Your task to perform on an android device: add a label to a message in the gmail app Image 0: 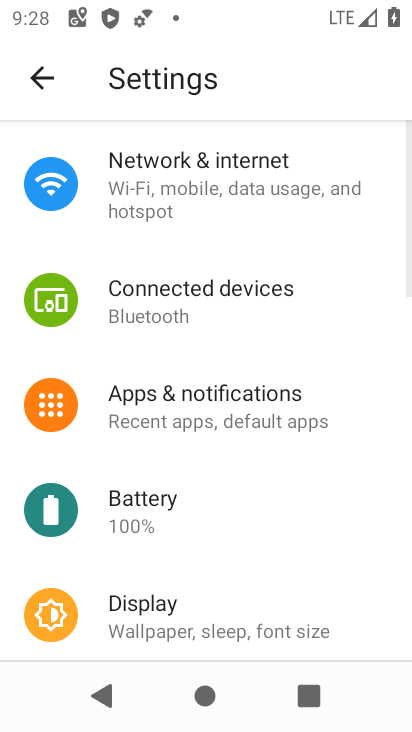
Step 0: press home button
Your task to perform on an android device: add a label to a message in the gmail app Image 1: 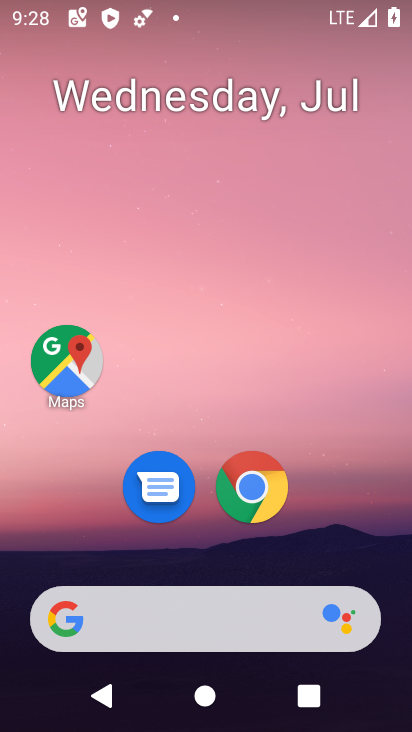
Step 1: drag from (191, 552) to (128, 0)
Your task to perform on an android device: add a label to a message in the gmail app Image 2: 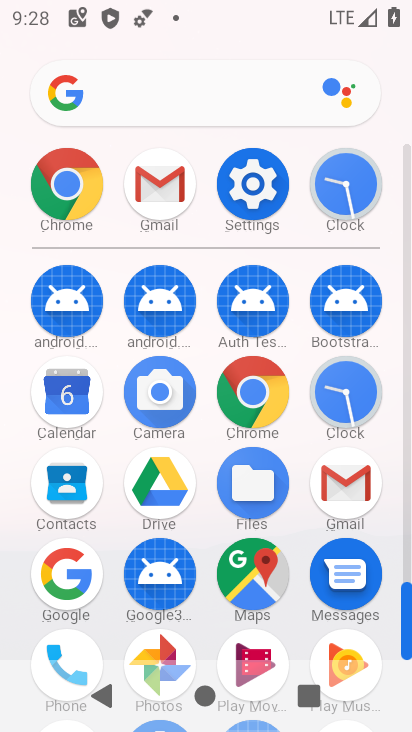
Step 2: click (164, 189)
Your task to perform on an android device: add a label to a message in the gmail app Image 3: 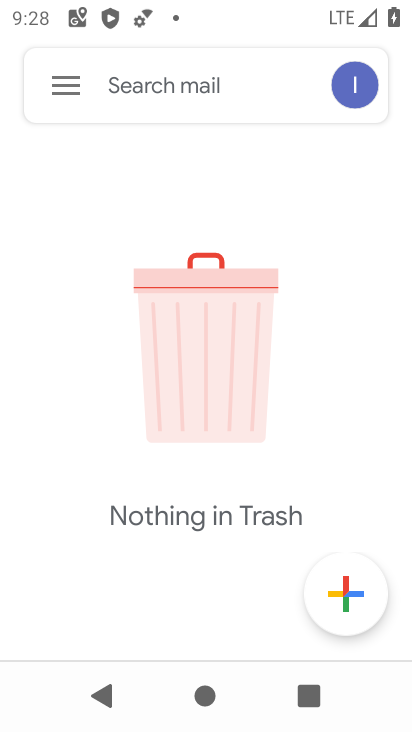
Step 3: task complete